Your task to perform on an android device: open chrome privacy settings Image 0: 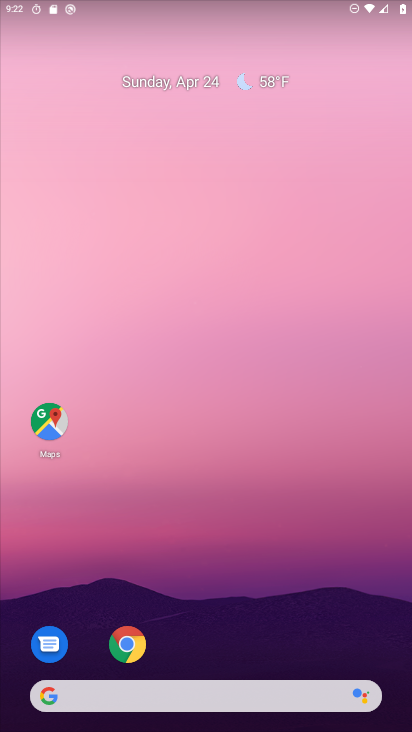
Step 0: drag from (246, 556) to (288, 91)
Your task to perform on an android device: open chrome privacy settings Image 1: 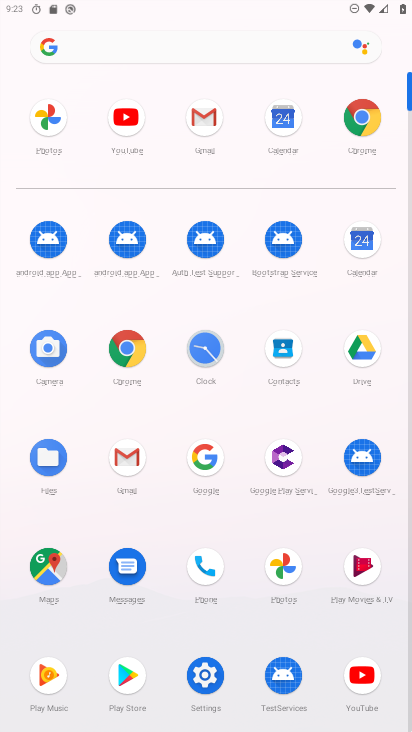
Step 1: click (203, 676)
Your task to perform on an android device: open chrome privacy settings Image 2: 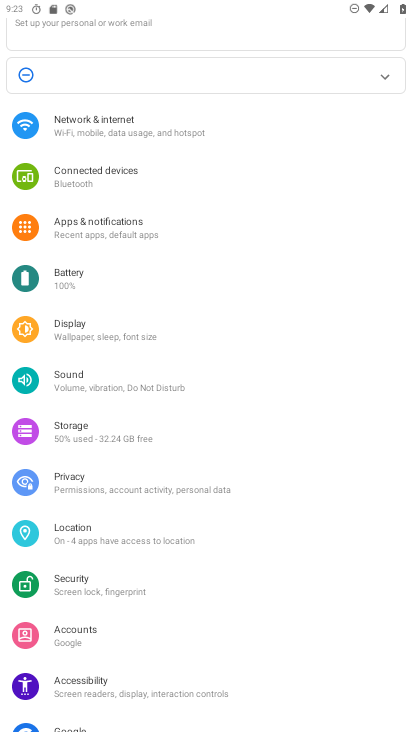
Step 2: click (102, 488)
Your task to perform on an android device: open chrome privacy settings Image 3: 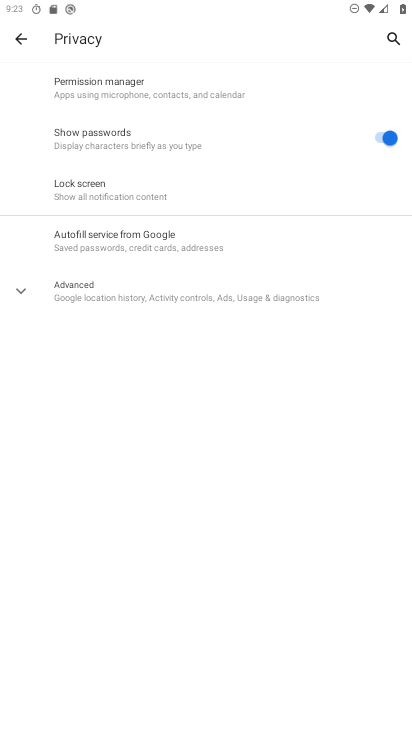
Step 3: click (24, 289)
Your task to perform on an android device: open chrome privacy settings Image 4: 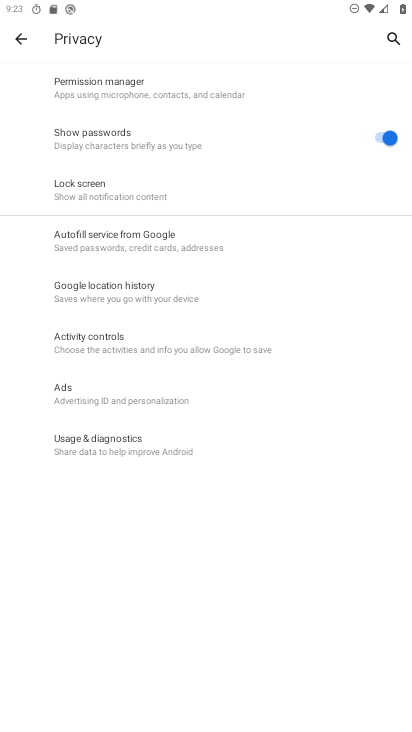
Step 4: task complete